Your task to perform on an android device: Open sound settings Image 0: 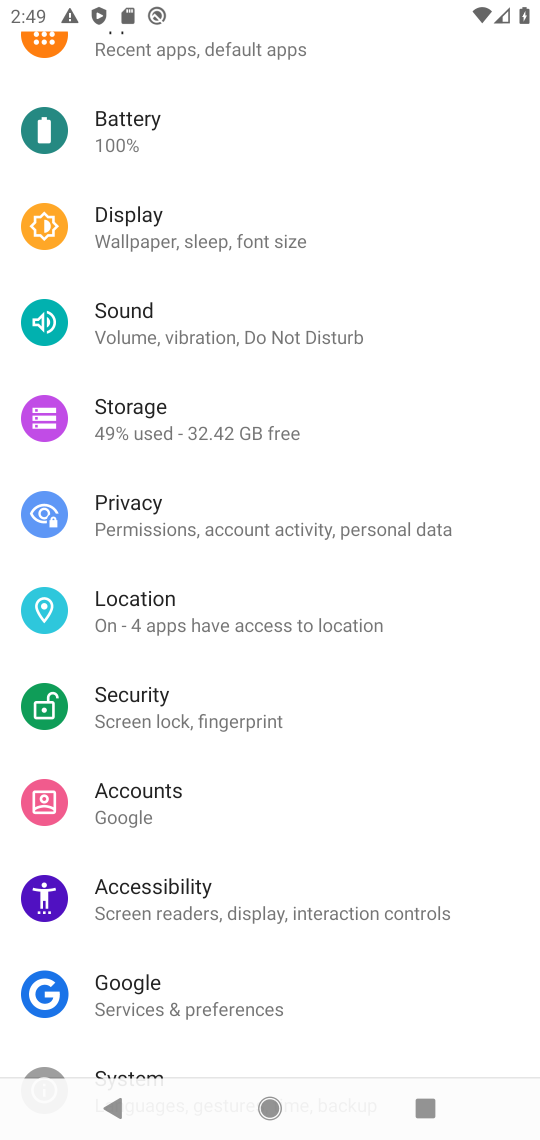
Step 0: press home button
Your task to perform on an android device: Open sound settings Image 1: 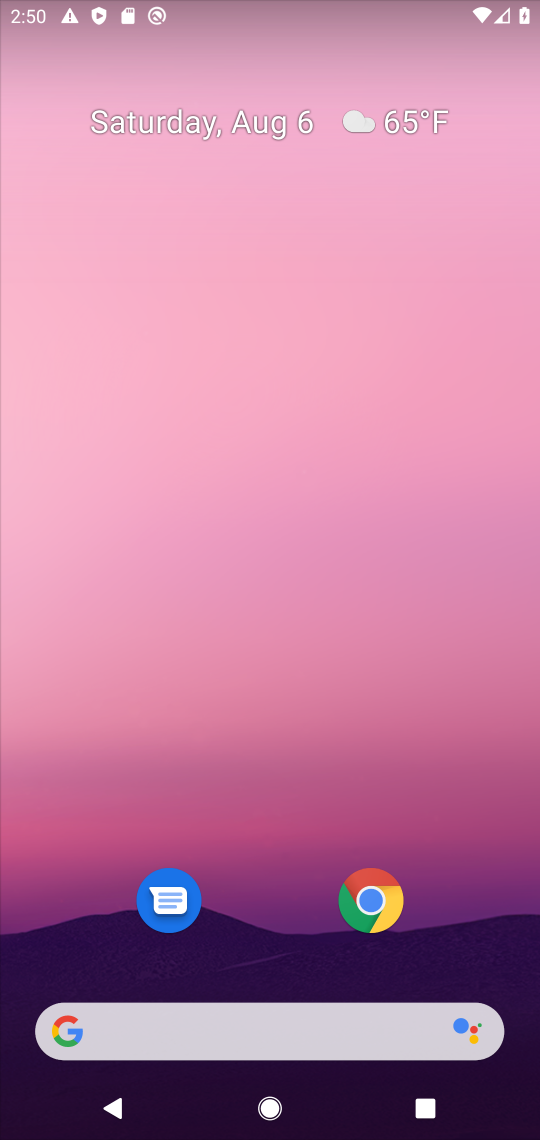
Step 1: drag from (278, 749) to (276, 62)
Your task to perform on an android device: Open sound settings Image 2: 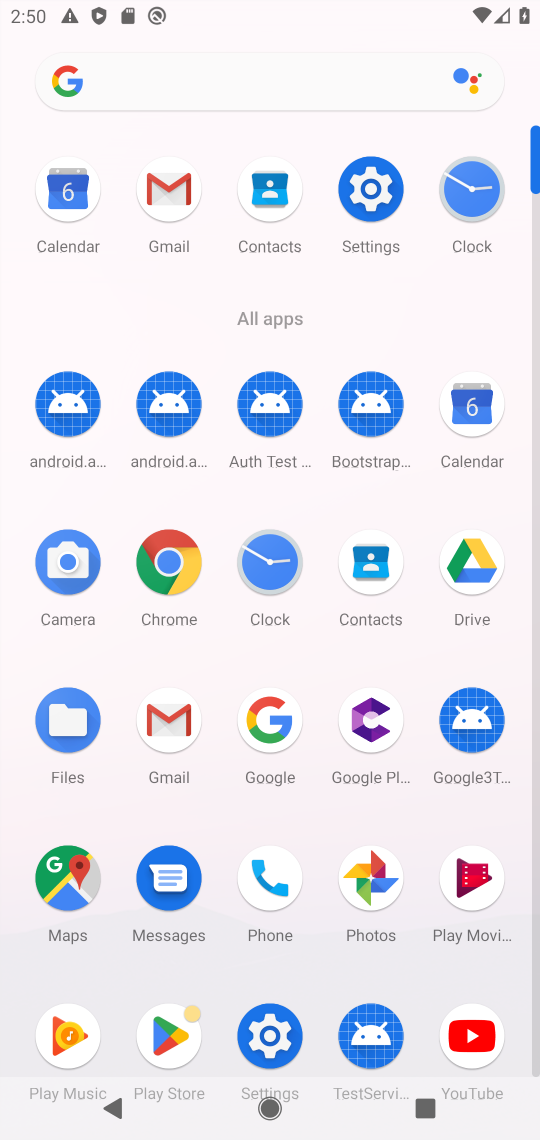
Step 2: click (347, 198)
Your task to perform on an android device: Open sound settings Image 3: 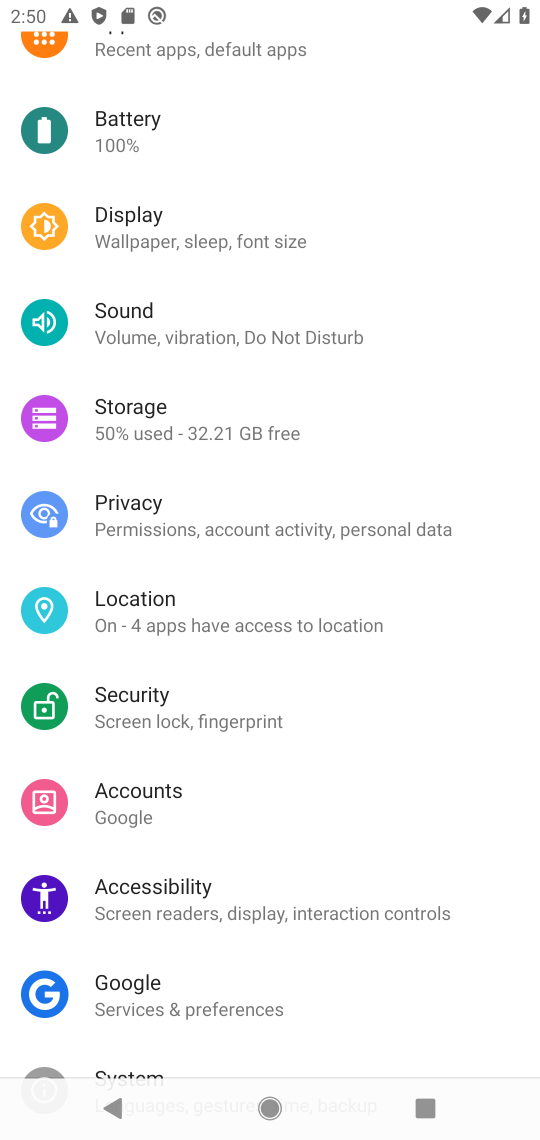
Step 3: click (119, 329)
Your task to perform on an android device: Open sound settings Image 4: 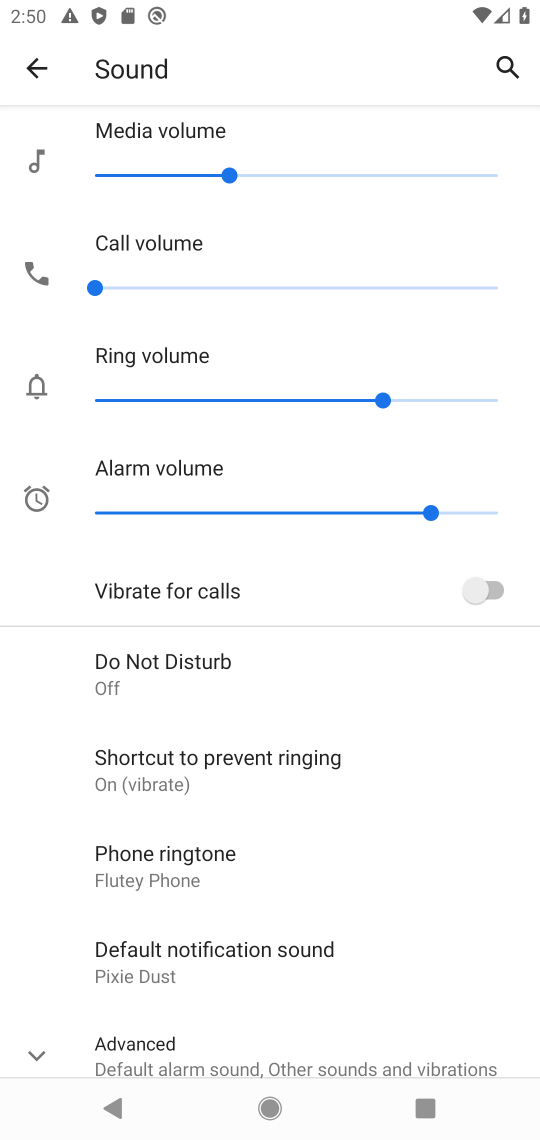
Step 4: task complete